Your task to perform on an android device: Empty the shopping cart on target. Add lg ultragear to the cart on target, then select checkout. Image 0: 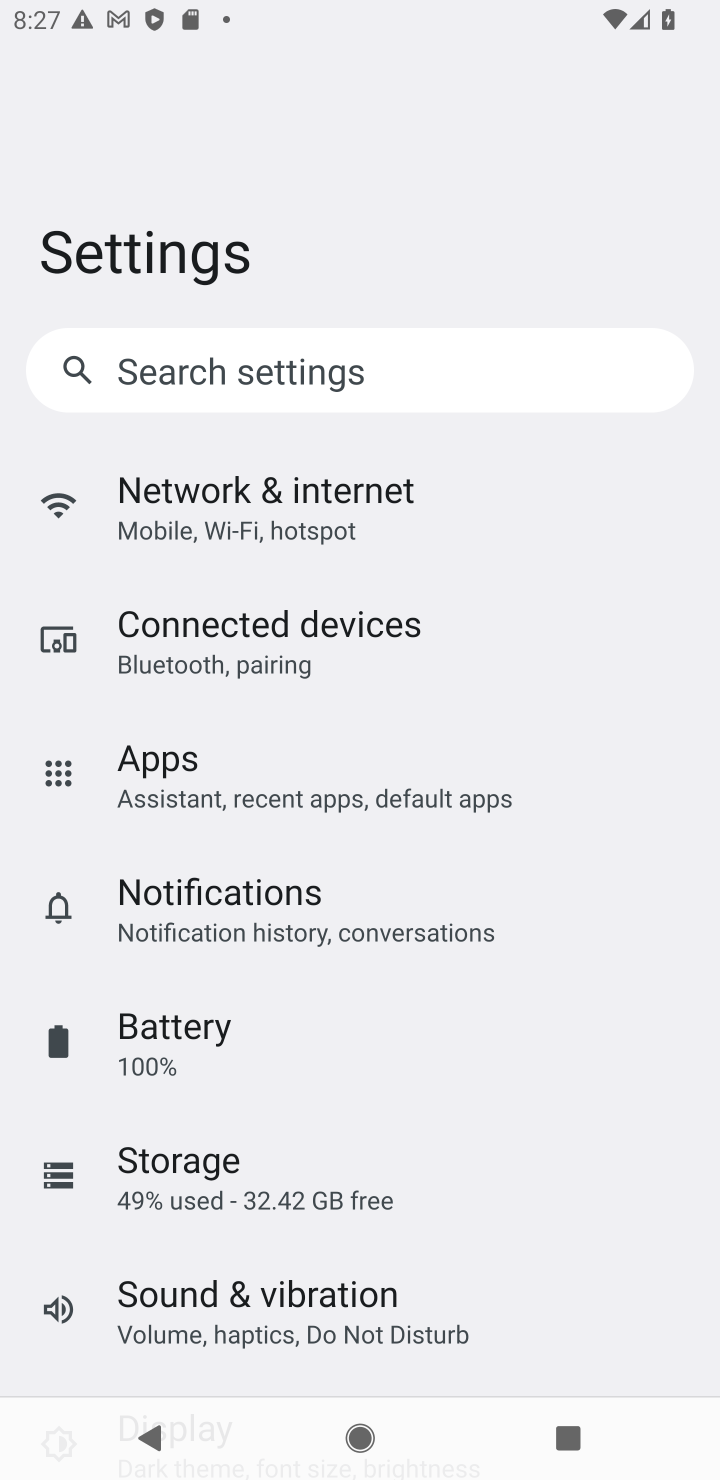
Step 0: press home button
Your task to perform on an android device: Empty the shopping cart on target. Add lg ultragear to the cart on target, then select checkout. Image 1: 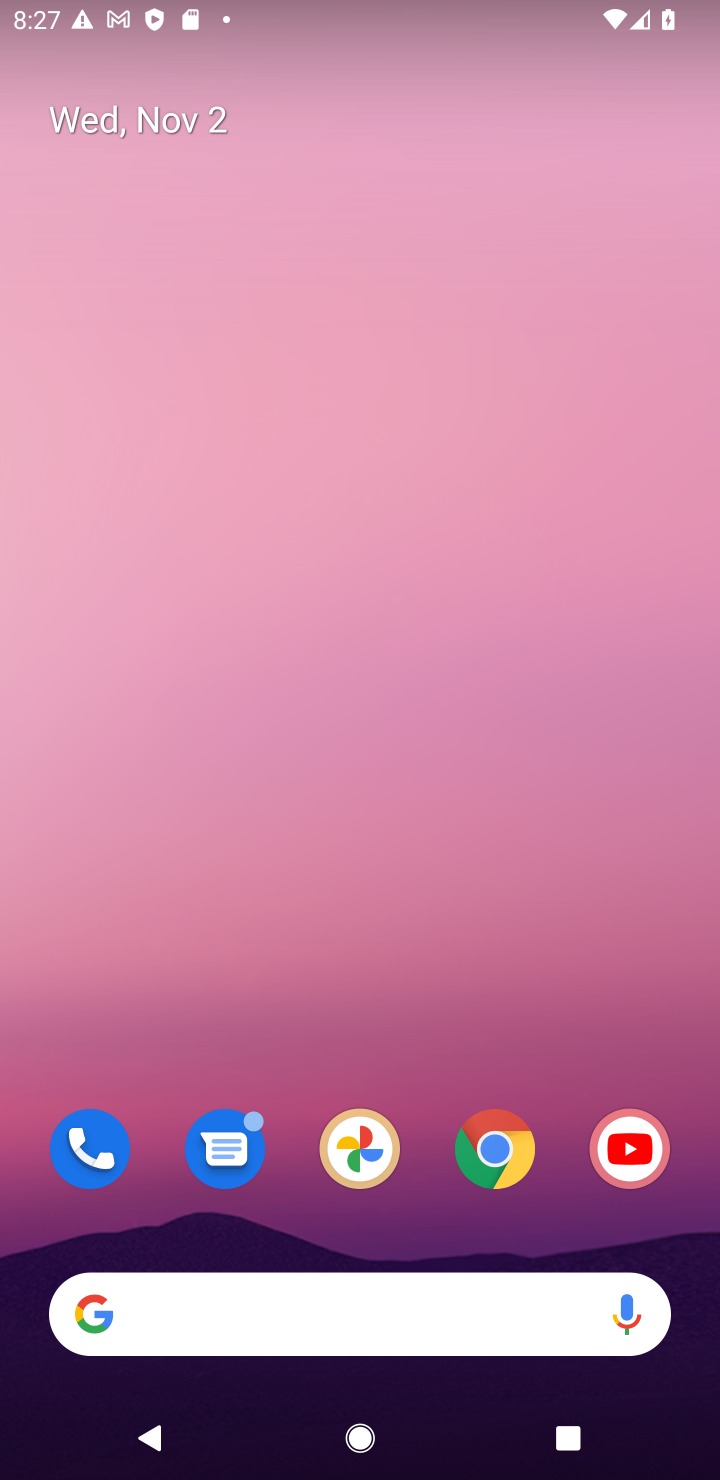
Step 1: click (495, 1153)
Your task to perform on an android device: Empty the shopping cart on target. Add lg ultragear to the cart on target, then select checkout. Image 2: 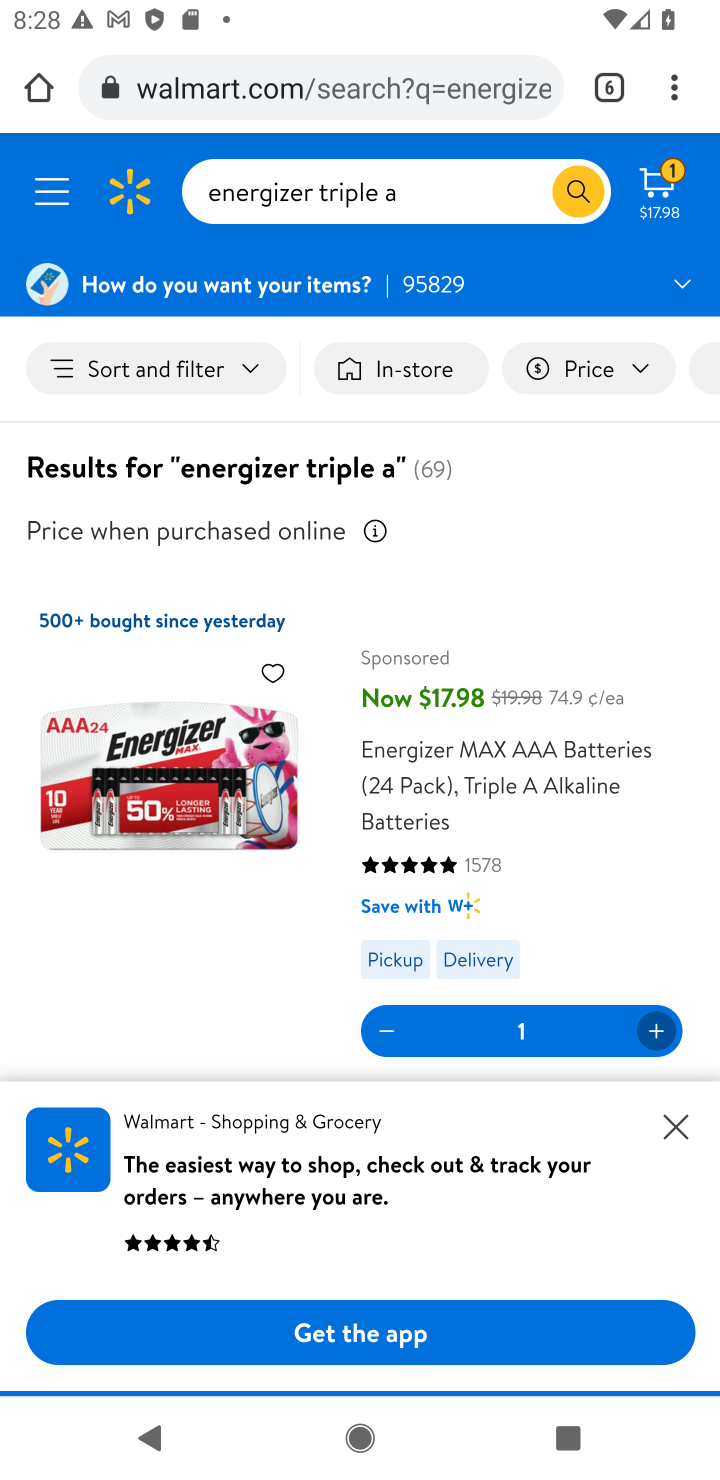
Step 2: drag from (671, 90) to (383, 298)
Your task to perform on an android device: Empty the shopping cart on target. Add lg ultragear to the cart on target, then select checkout. Image 3: 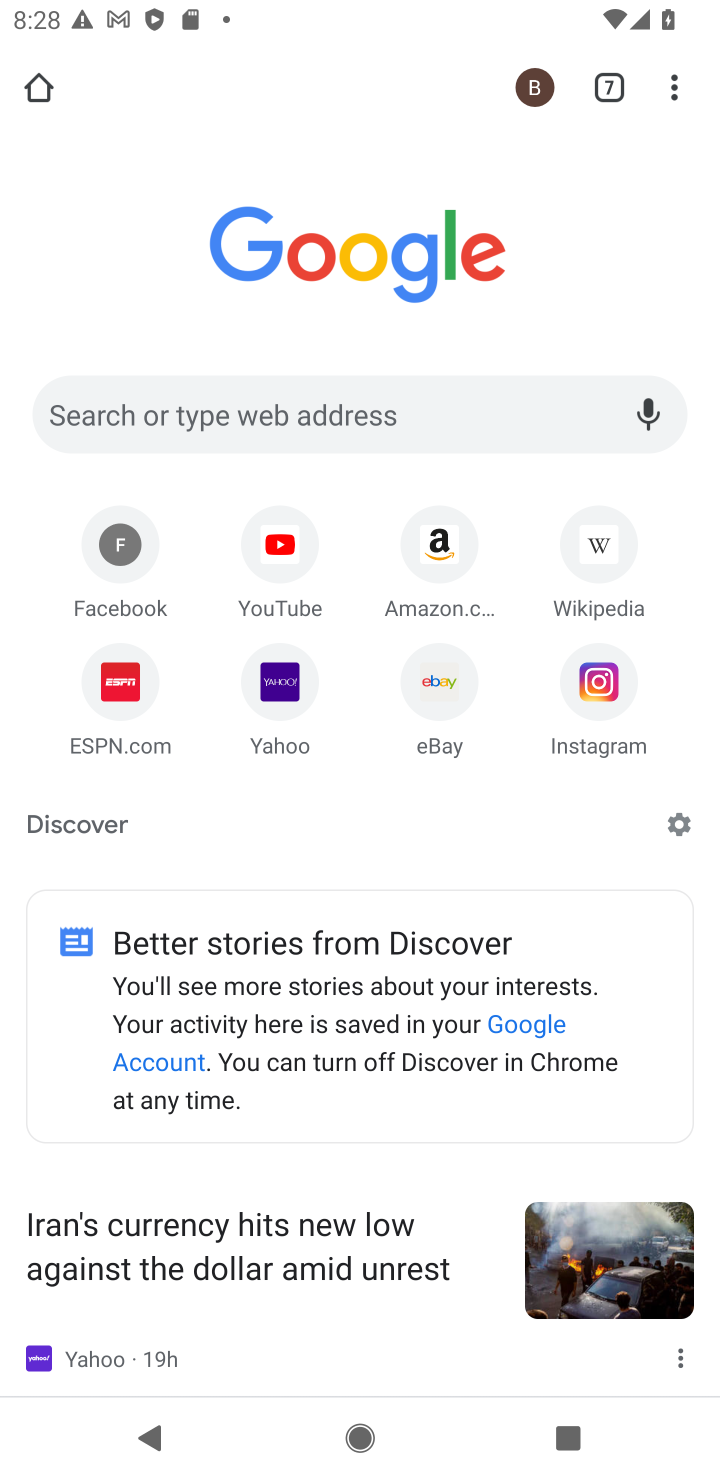
Step 3: click (407, 426)
Your task to perform on an android device: Empty the shopping cart on target. Add lg ultragear to the cart on target, then select checkout. Image 4: 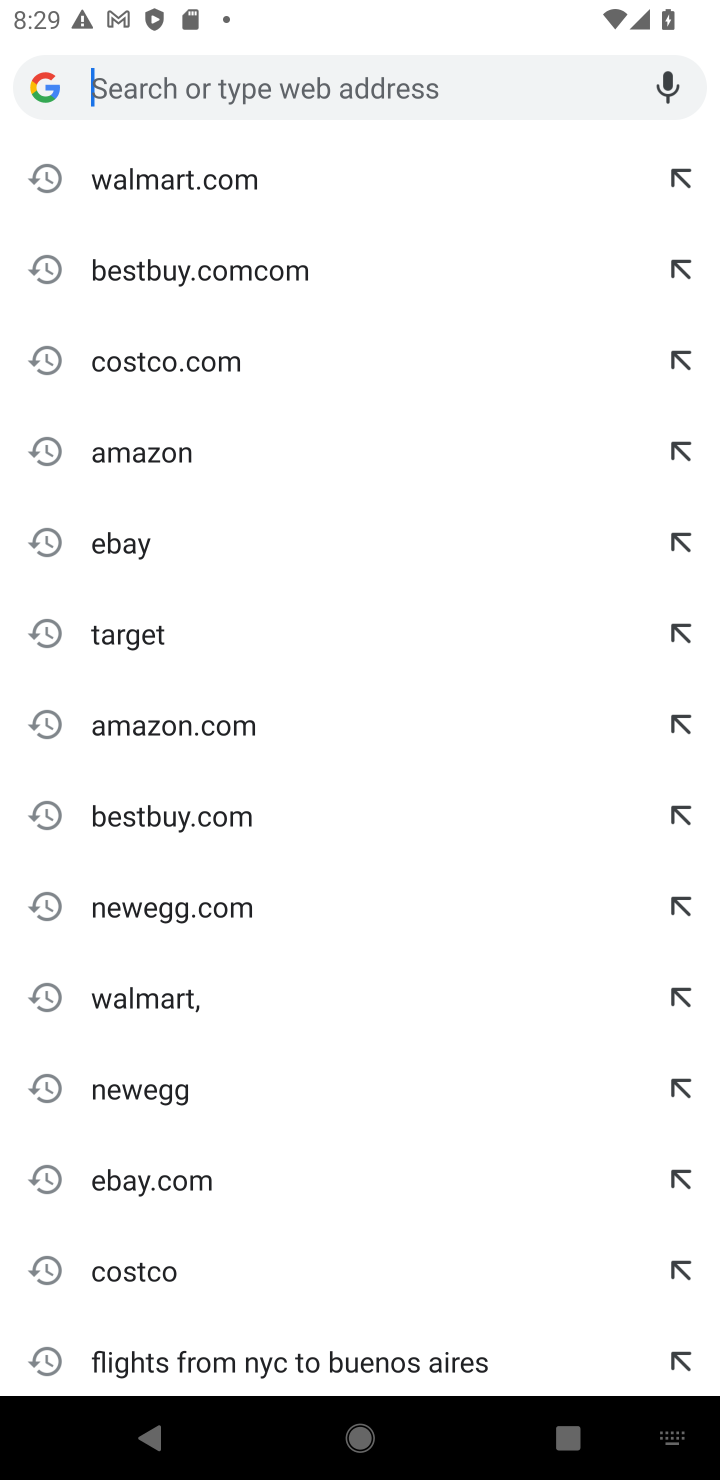
Step 4: type "target"
Your task to perform on an android device: Empty the shopping cart on target. Add lg ultragear to the cart on target, then select checkout. Image 5: 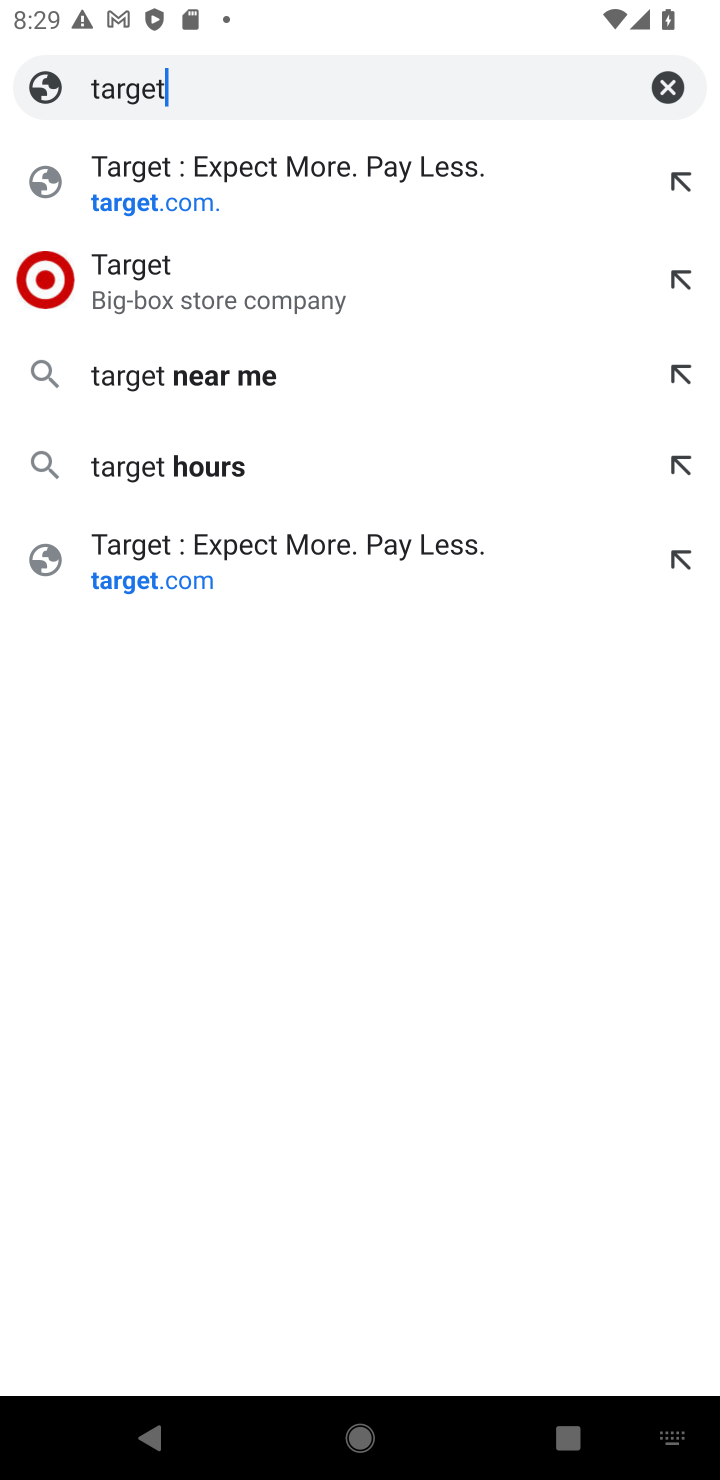
Step 5: click (143, 262)
Your task to perform on an android device: Empty the shopping cart on target. Add lg ultragear to the cart on target, then select checkout. Image 6: 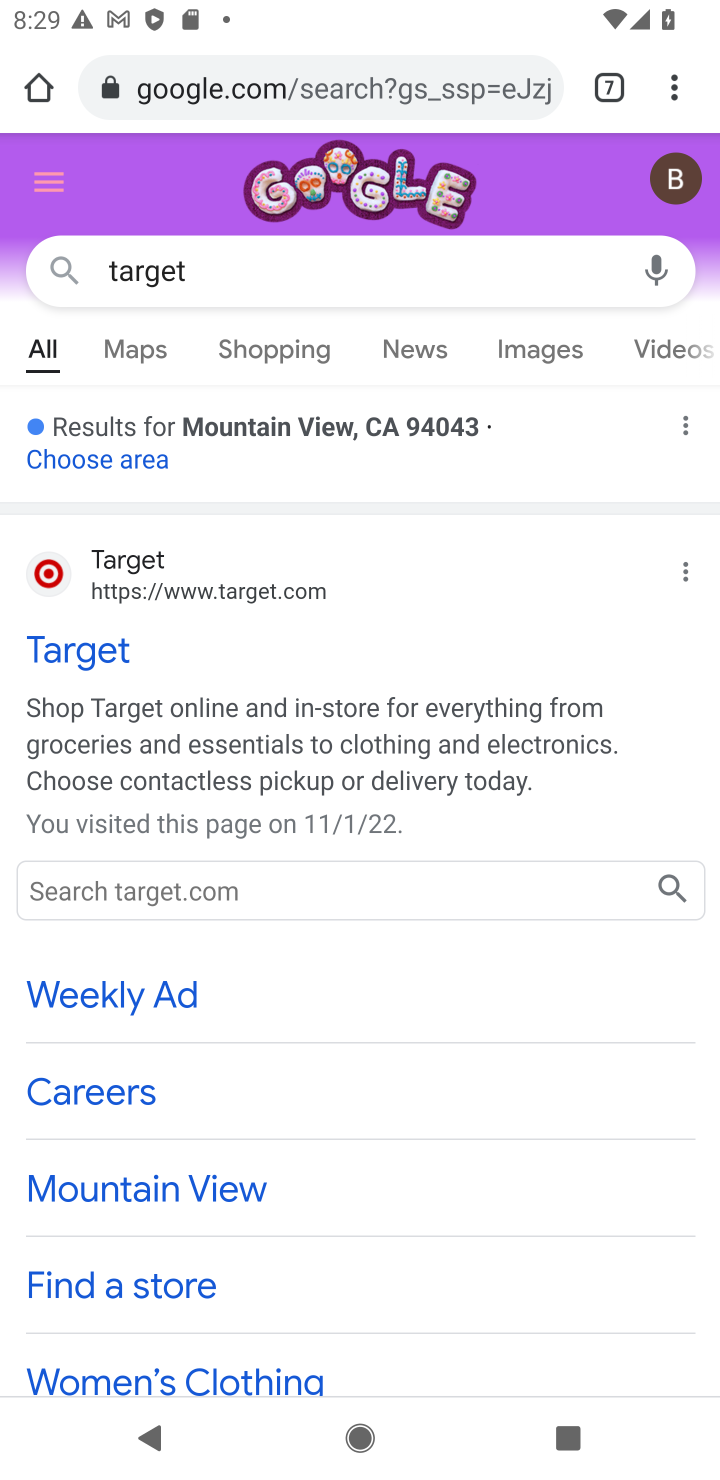
Step 6: click (51, 648)
Your task to perform on an android device: Empty the shopping cart on target. Add lg ultragear to the cart on target, then select checkout. Image 7: 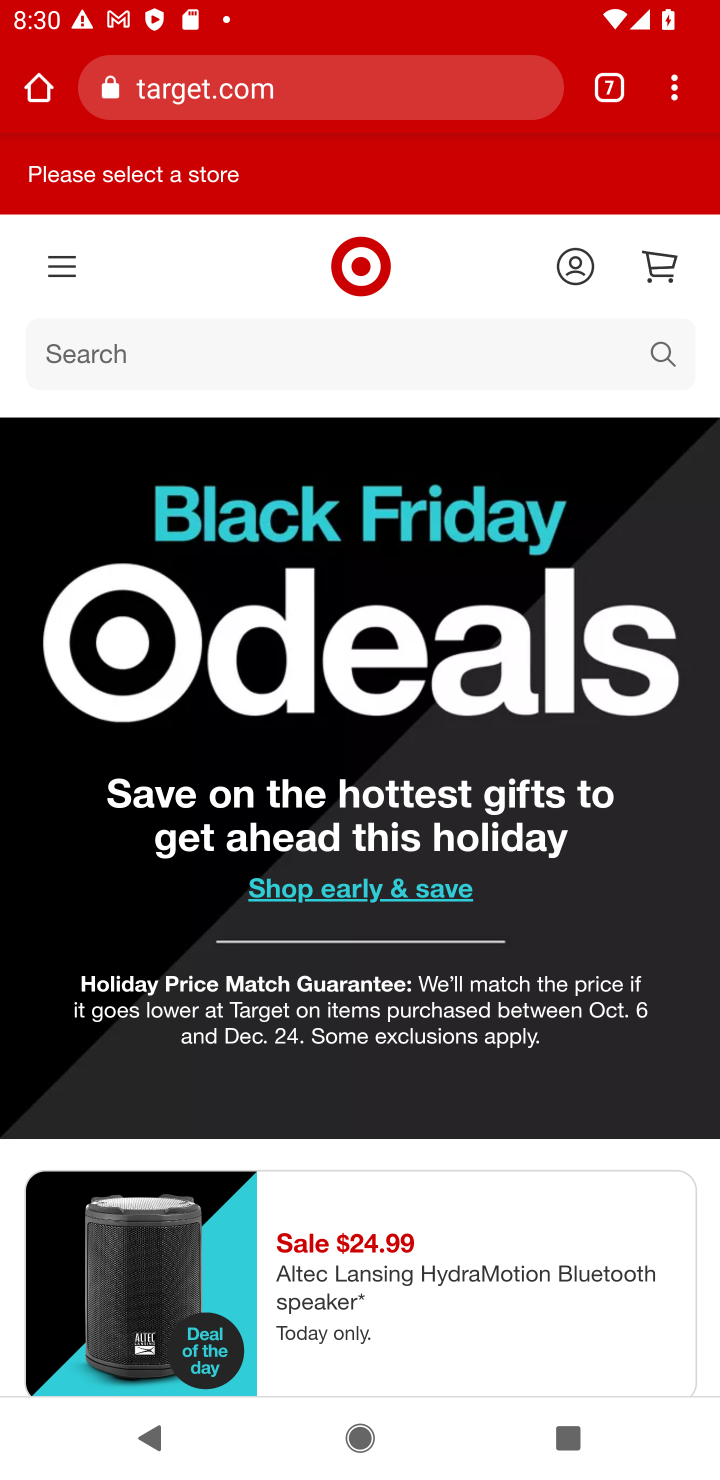
Step 7: click (309, 340)
Your task to perform on an android device: Empty the shopping cart on target. Add lg ultragear to the cart on target, then select checkout. Image 8: 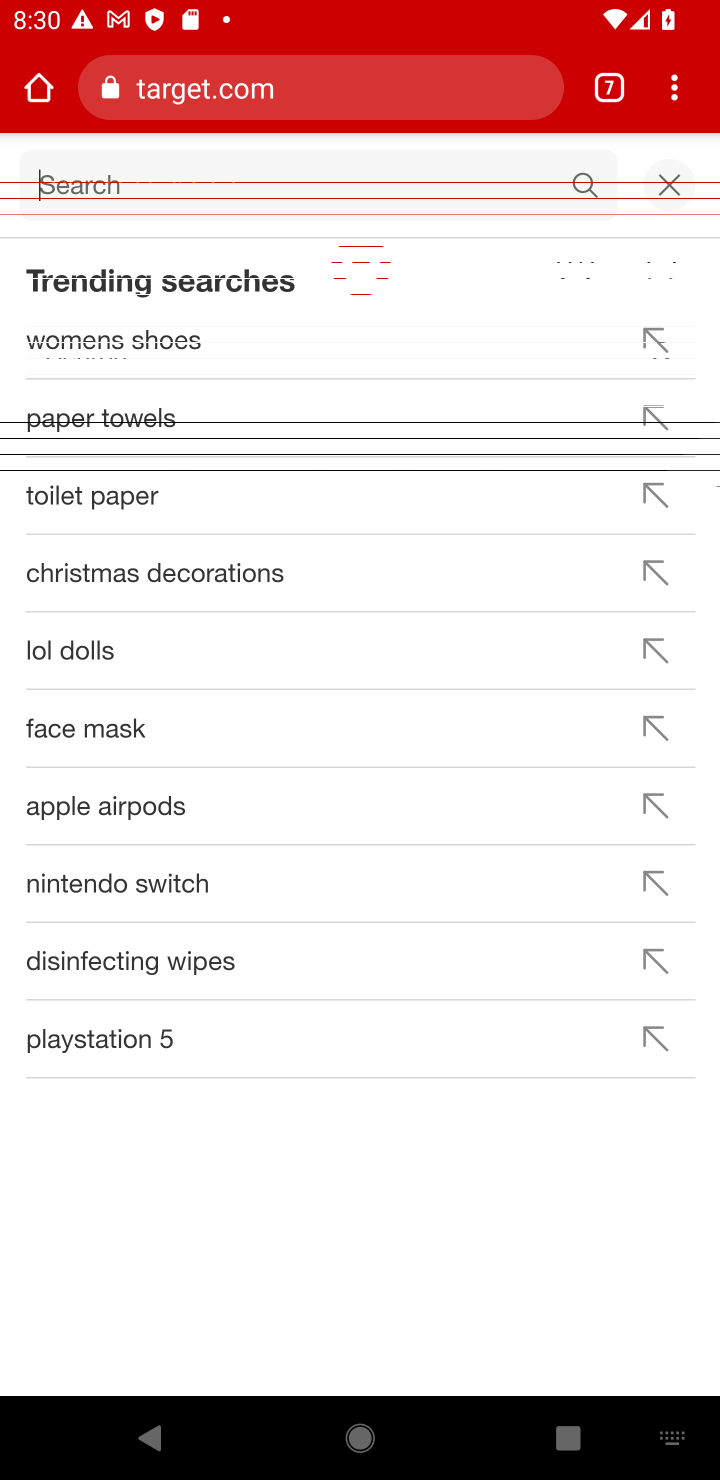
Step 8: type "ultragear"
Your task to perform on an android device: Empty the shopping cart on target. Add lg ultragear to the cart on target, then select checkout. Image 9: 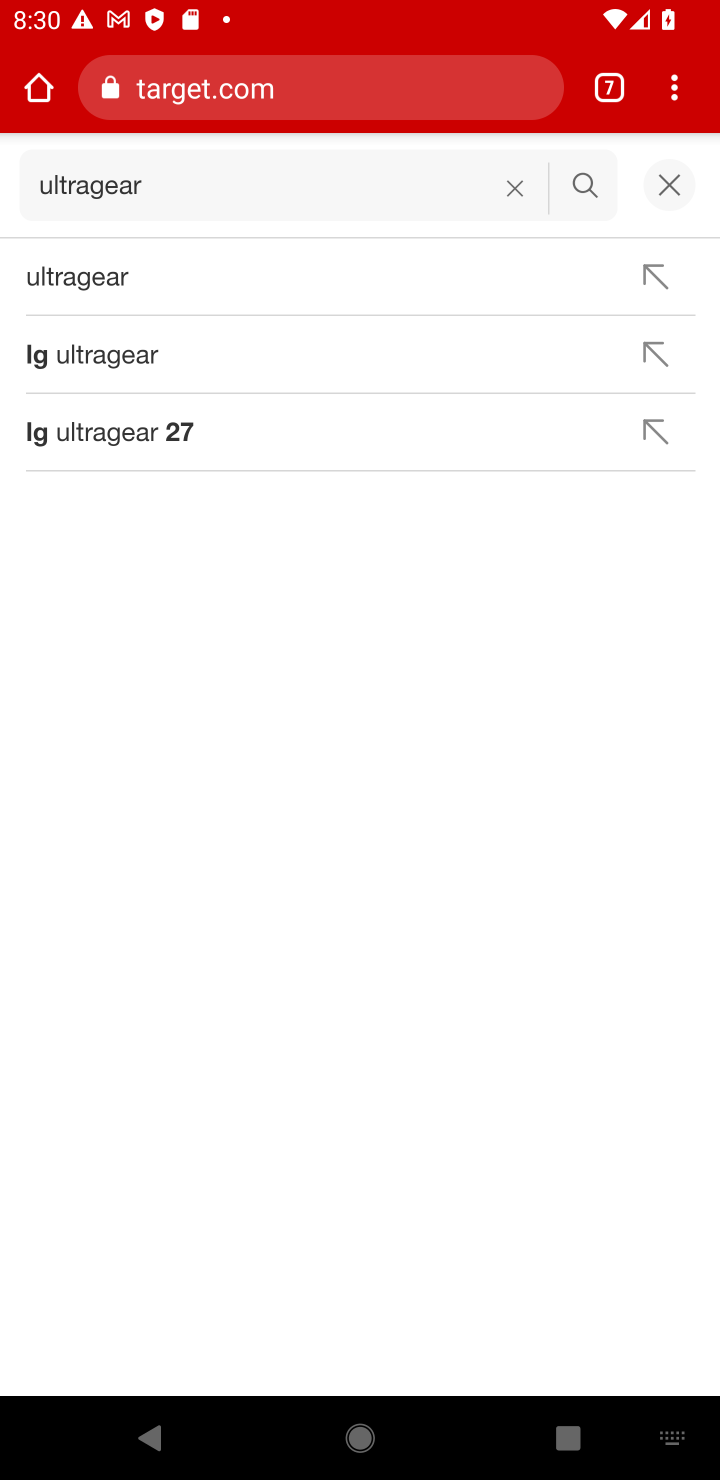
Step 9: click (136, 278)
Your task to perform on an android device: Empty the shopping cart on target. Add lg ultragear to the cart on target, then select checkout. Image 10: 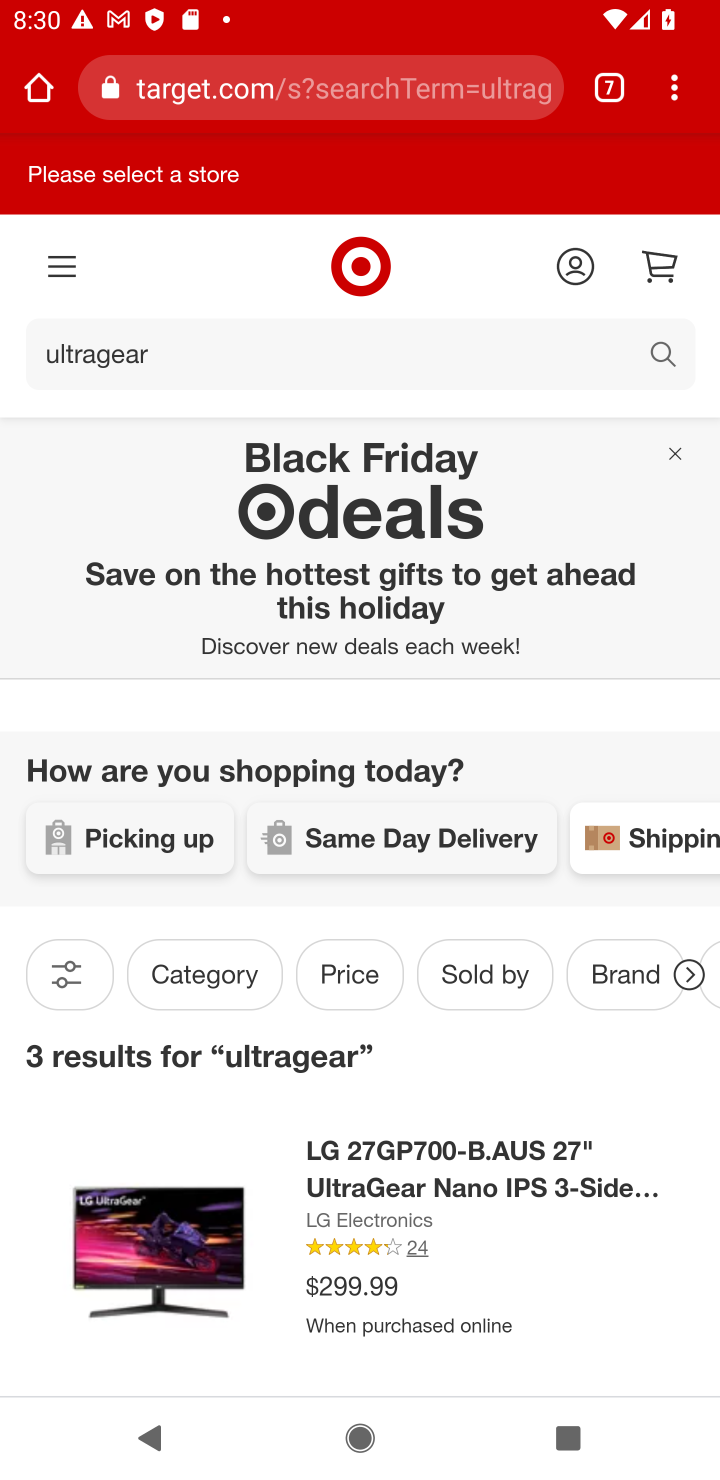
Step 10: click (505, 1164)
Your task to perform on an android device: Empty the shopping cart on target. Add lg ultragear to the cart on target, then select checkout. Image 11: 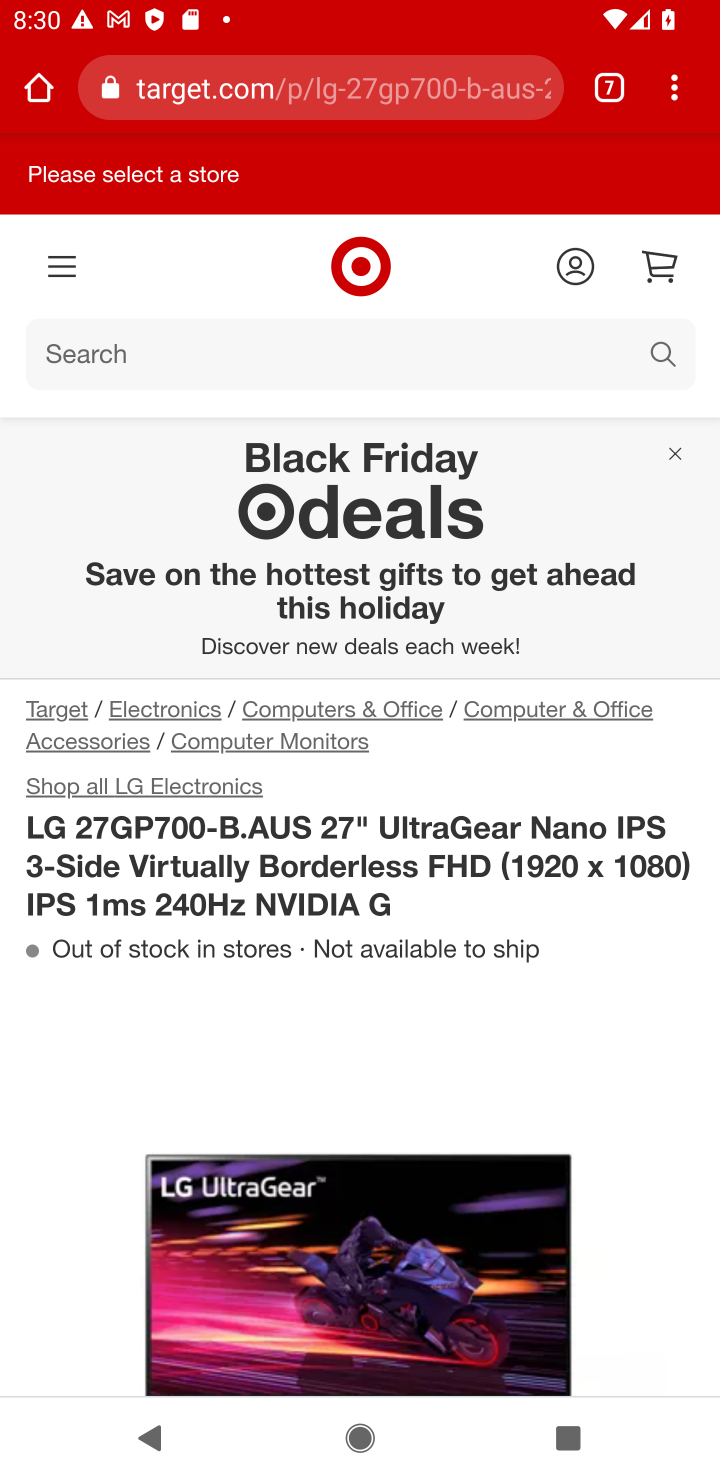
Step 11: task complete